Your task to perform on an android device: Go to Yahoo.com Image 0: 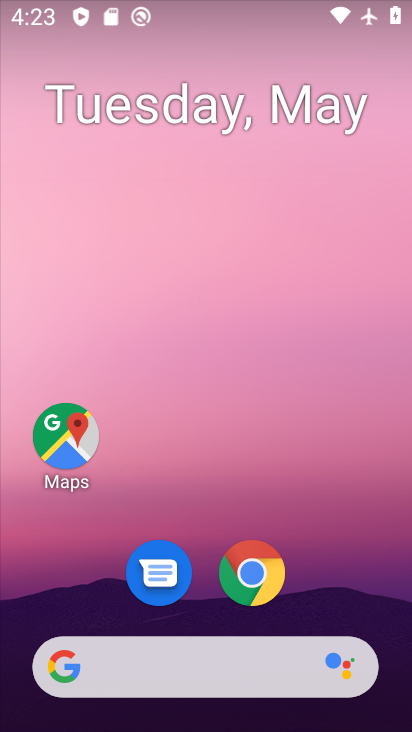
Step 0: click (253, 575)
Your task to perform on an android device: Go to Yahoo.com Image 1: 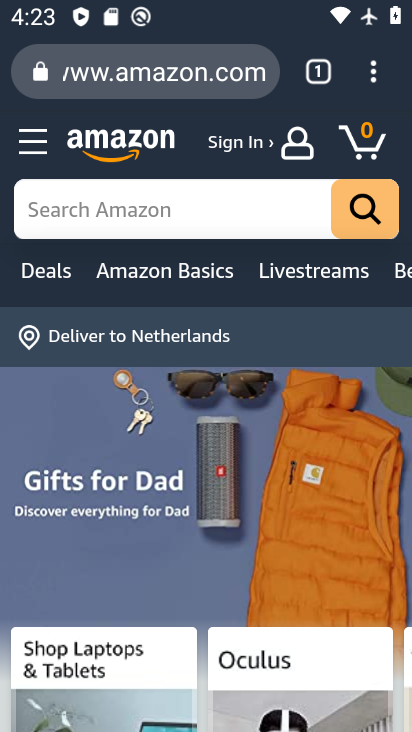
Step 1: click (173, 78)
Your task to perform on an android device: Go to Yahoo.com Image 2: 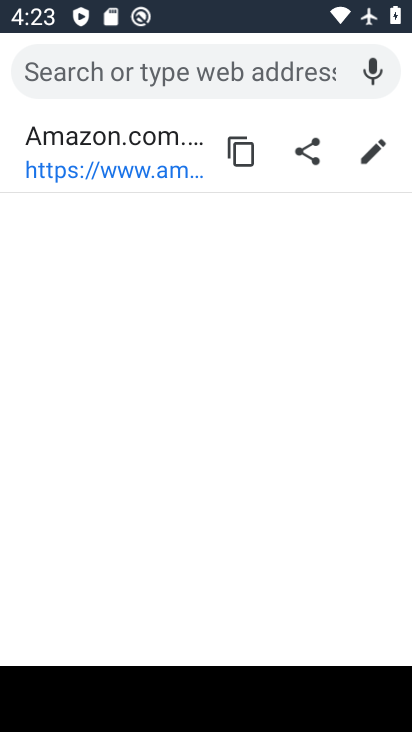
Step 2: type "yahoo.com"
Your task to perform on an android device: Go to Yahoo.com Image 3: 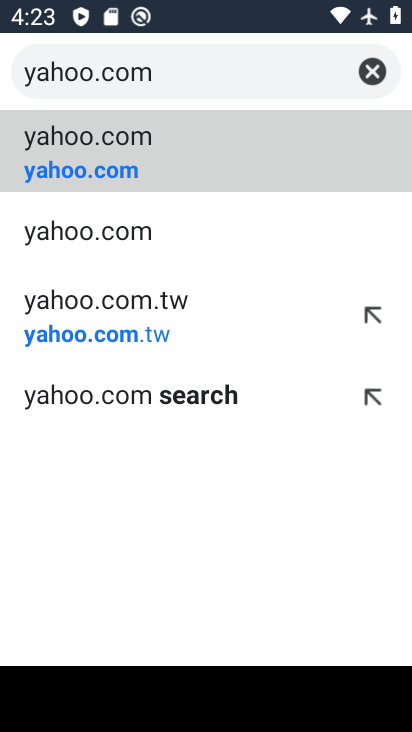
Step 3: click (88, 176)
Your task to perform on an android device: Go to Yahoo.com Image 4: 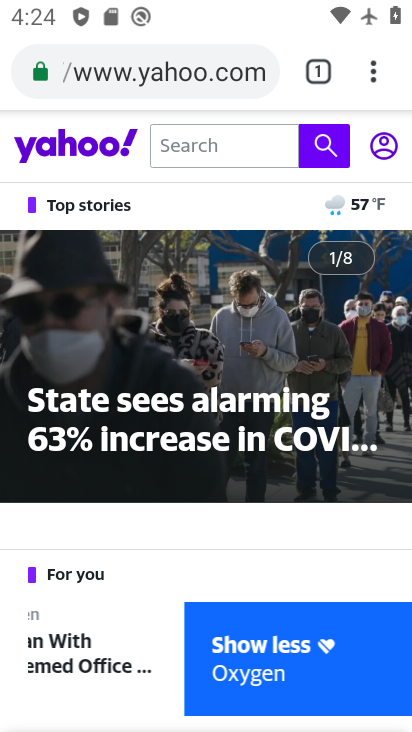
Step 4: task complete